Your task to perform on an android device: See recent photos Image 0: 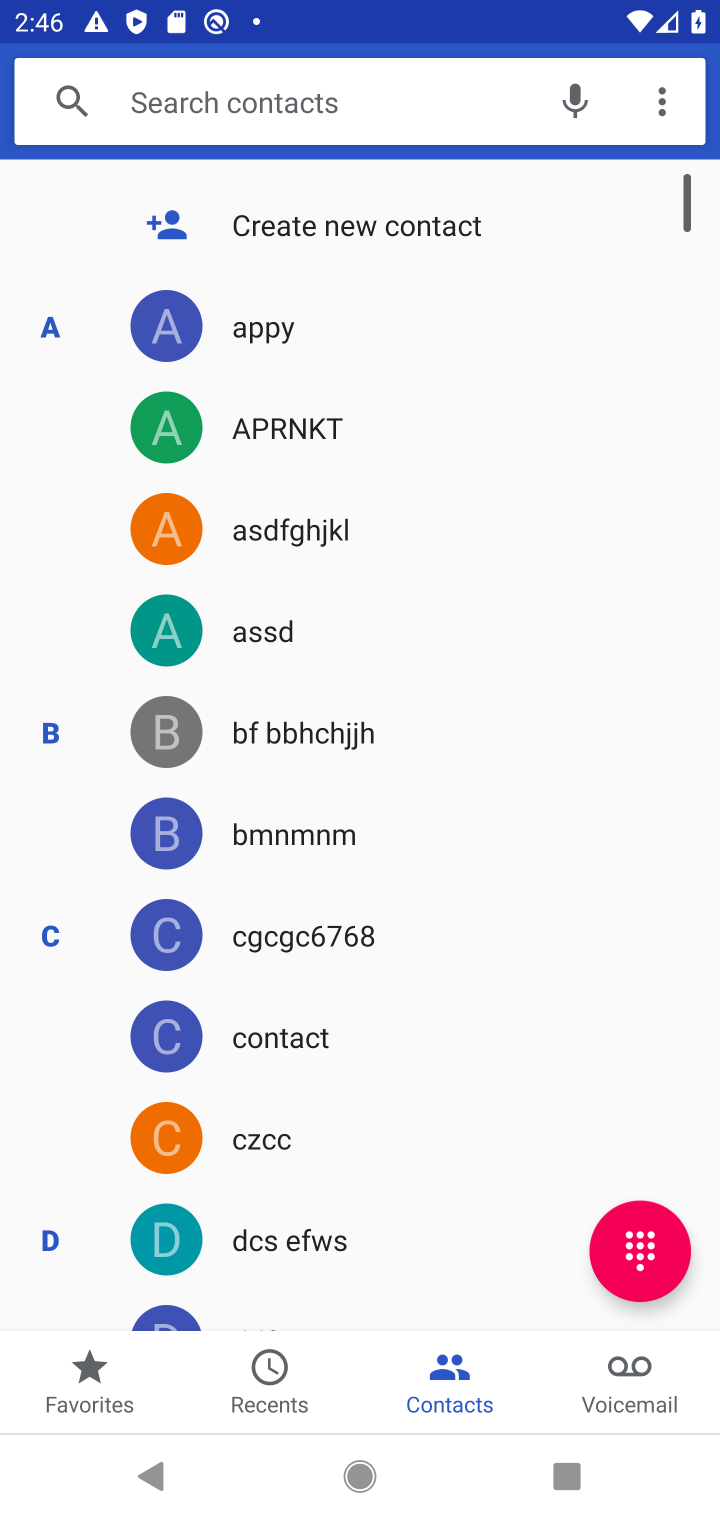
Step 0: press home button
Your task to perform on an android device: See recent photos Image 1: 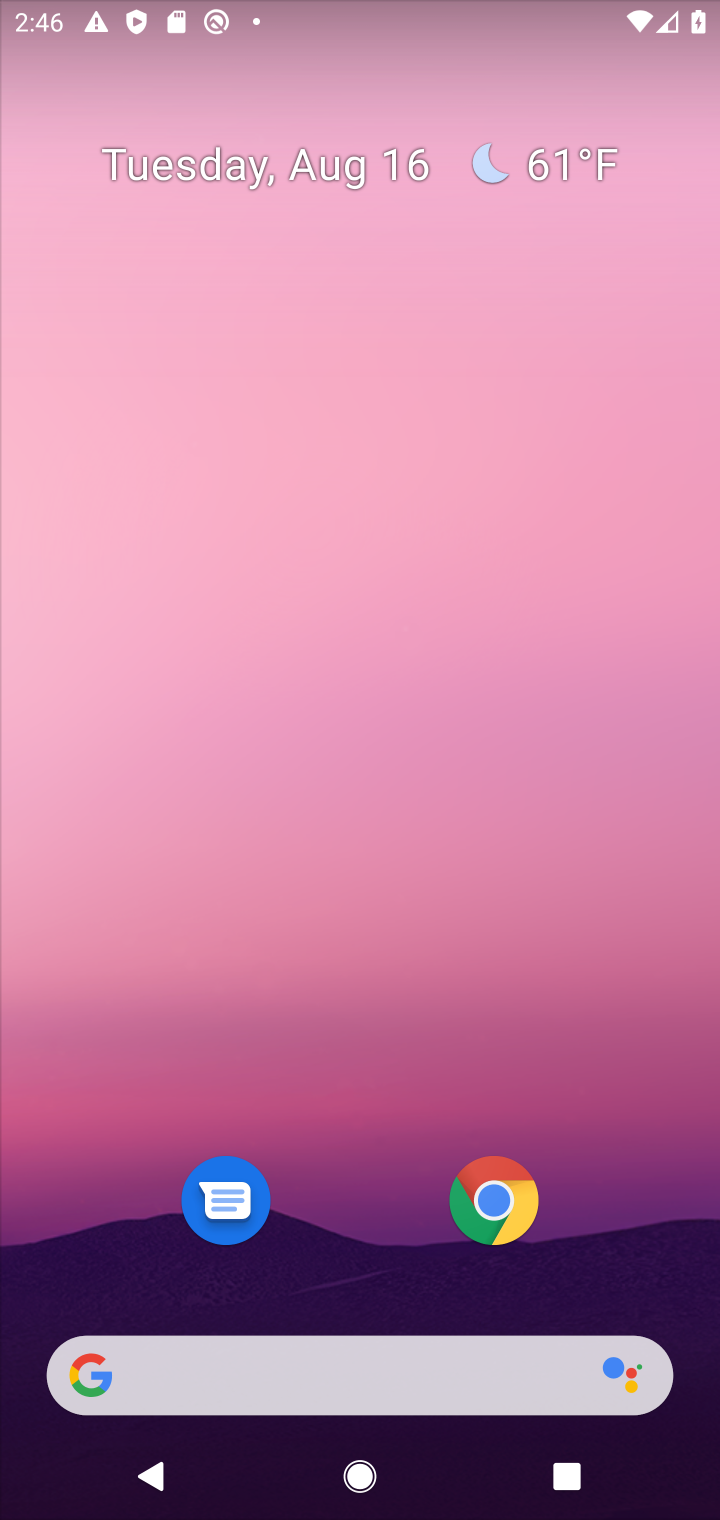
Step 1: click (309, 561)
Your task to perform on an android device: See recent photos Image 2: 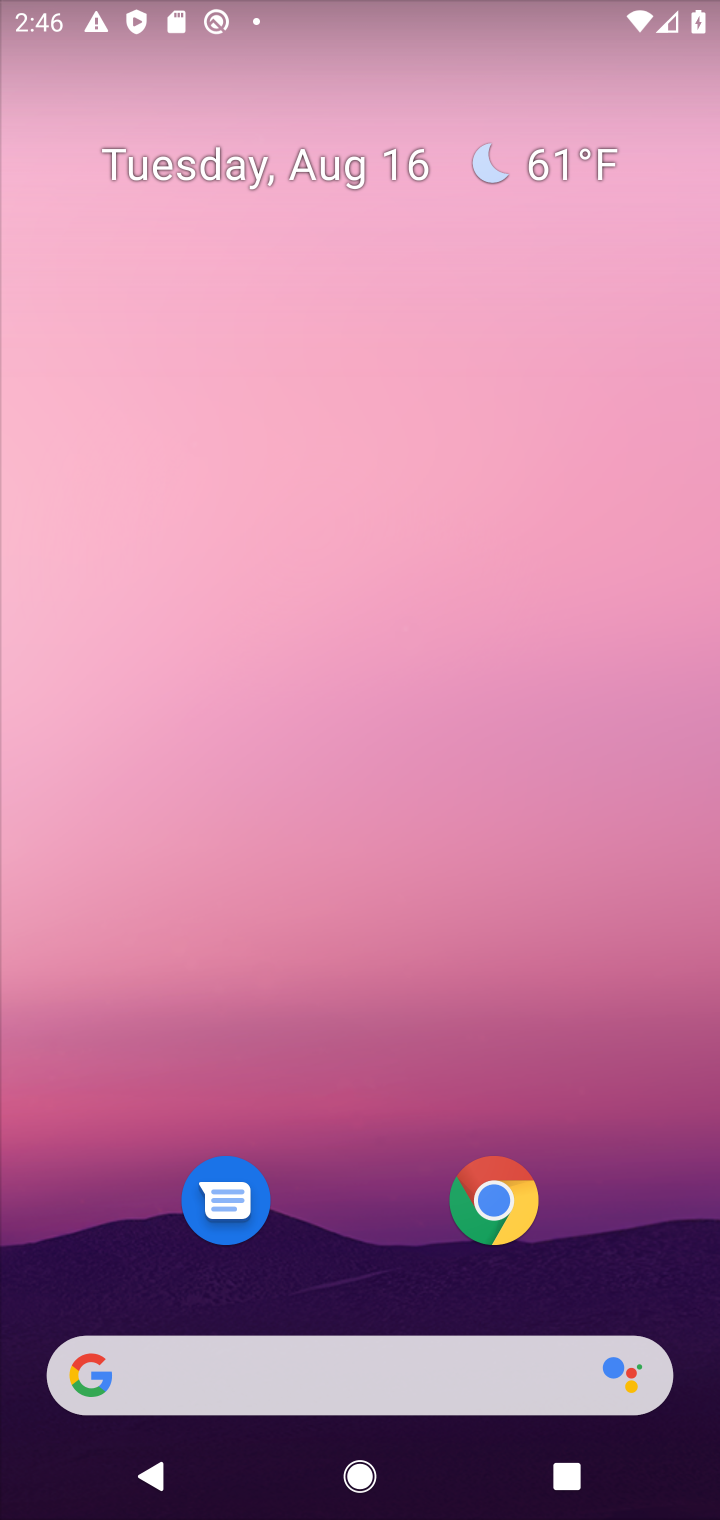
Step 2: task complete